Your task to perform on an android device: empty trash in google photos Image 0: 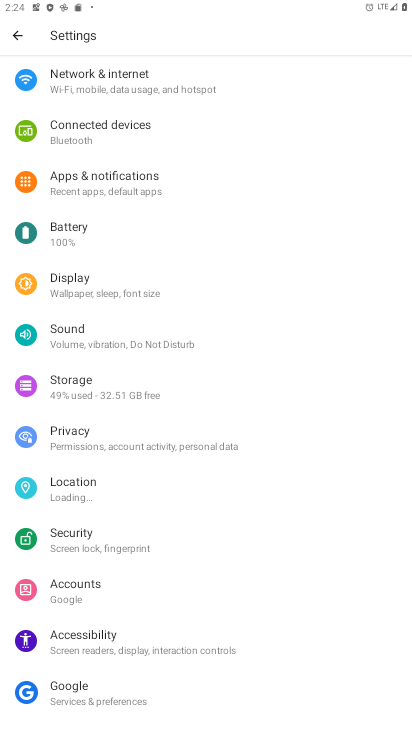
Step 0: press home button
Your task to perform on an android device: empty trash in google photos Image 1: 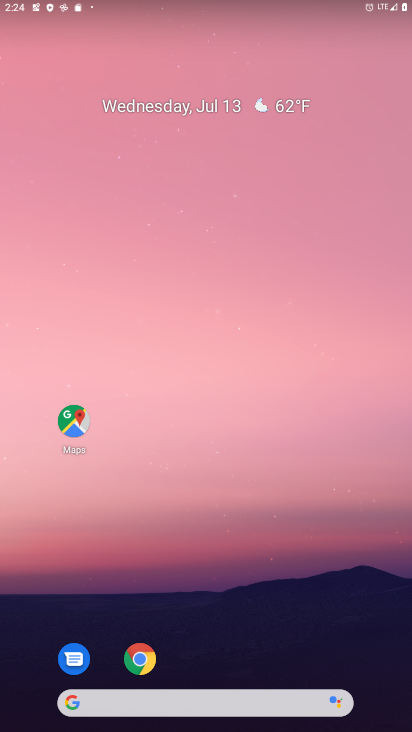
Step 1: drag from (221, 723) to (212, 142)
Your task to perform on an android device: empty trash in google photos Image 2: 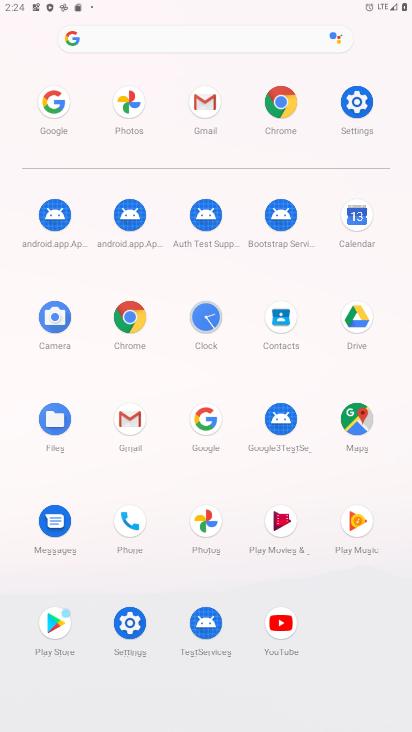
Step 2: click (207, 523)
Your task to perform on an android device: empty trash in google photos Image 3: 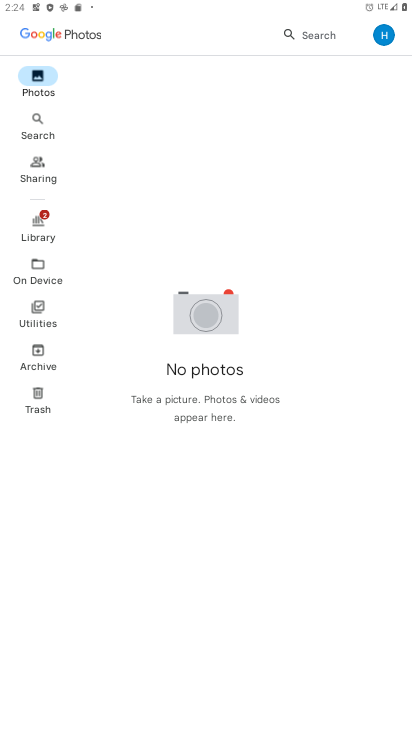
Step 3: click (33, 392)
Your task to perform on an android device: empty trash in google photos Image 4: 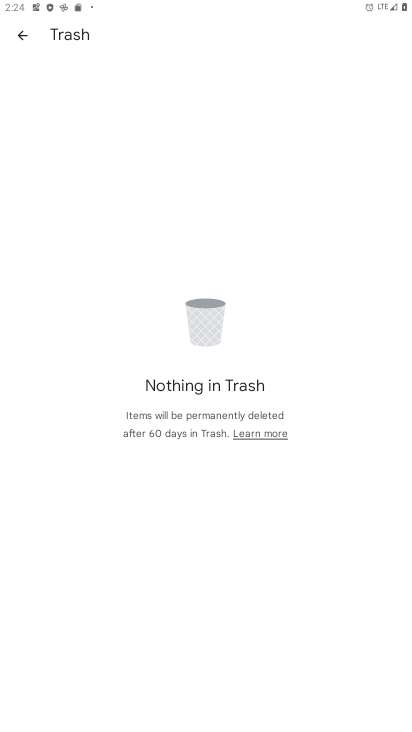
Step 4: task complete